Your task to perform on an android device: change notification settings in the gmail app Image 0: 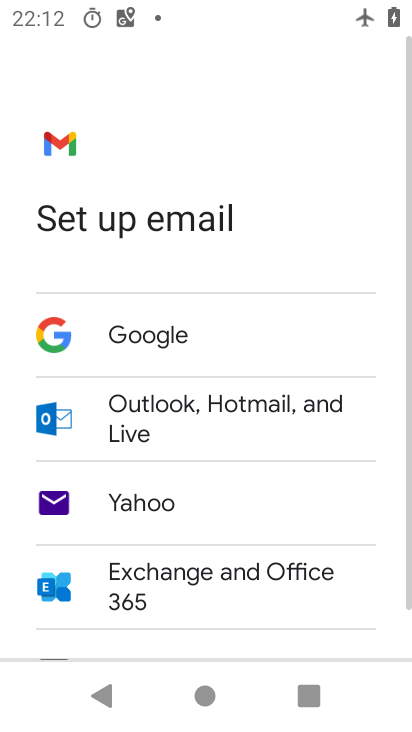
Step 0: press home button
Your task to perform on an android device: change notification settings in the gmail app Image 1: 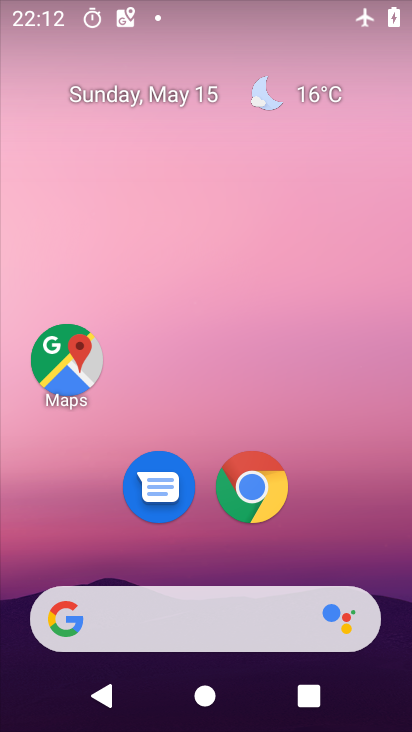
Step 1: drag from (408, 650) to (396, 238)
Your task to perform on an android device: change notification settings in the gmail app Image 2: 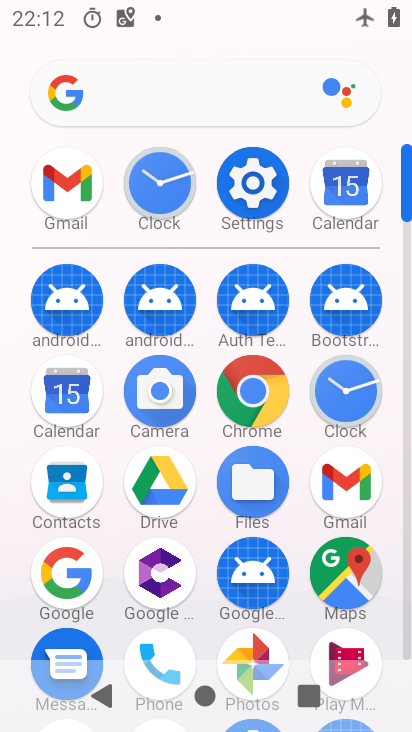
Step 2: click (349, 486)
Your task to perform on an android device: change notification settings in the gmail app Image 3: 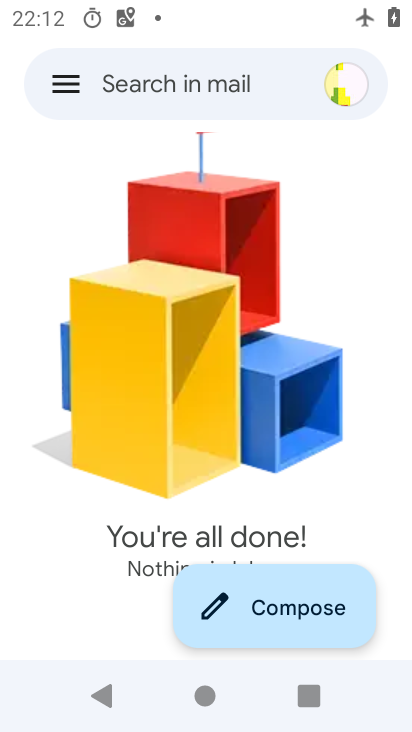
Step 3: click (57, 78)
Your task to perform on an android device: change notification settings in the gmail app Image 4: 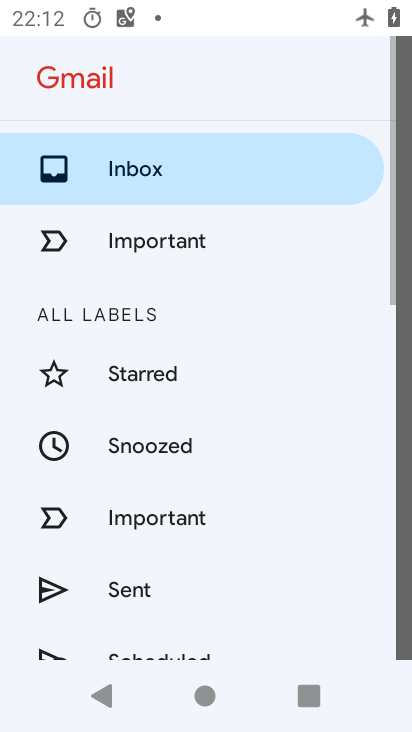
Step 4: drag from (267, 598) to (265, 336)
Your task to perform on an android device: change notification settings in the gmail app Image 5: 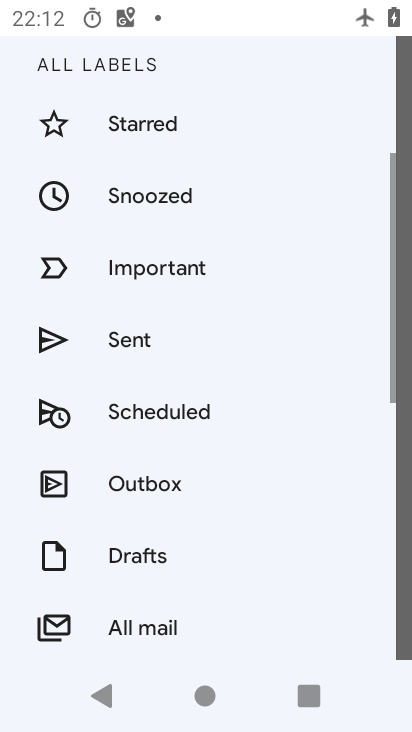
Step 5: drag from (282, 571) to (282, 338)
Your task to perform on an android device: change notification settings in the gmail app Image 6: 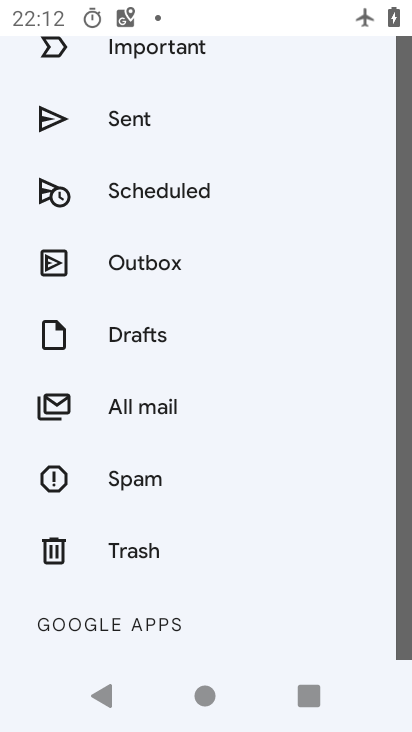
Step 6: drag from (288, 515) to (288, 317)
Your task to perform on an android device: change notification settings in the gmail app Image 7: 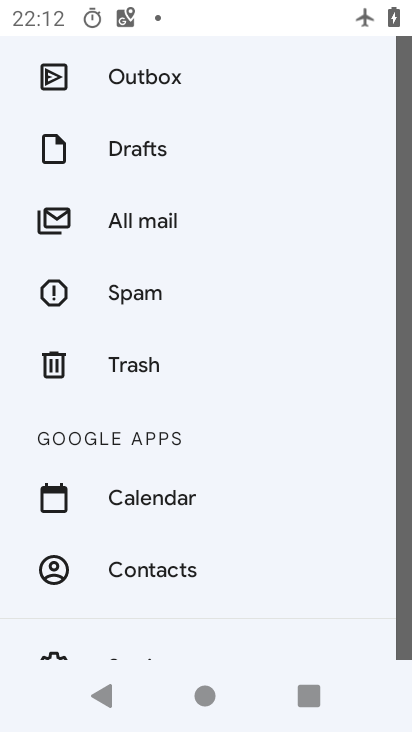
Step 7: drag from (286, 545) to (288, 269)
Your task to perform on an android device: change notification settings in the gmail app Image 8: 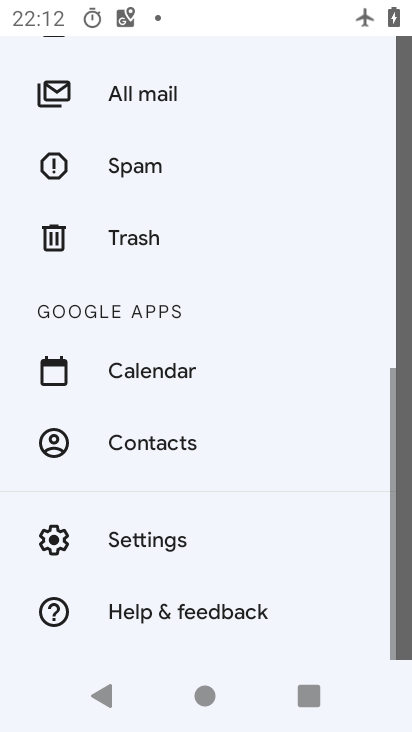
Step 8: click (167, 538)
Your task to perform on an android device: change notification settings in the gmail app Image 9: 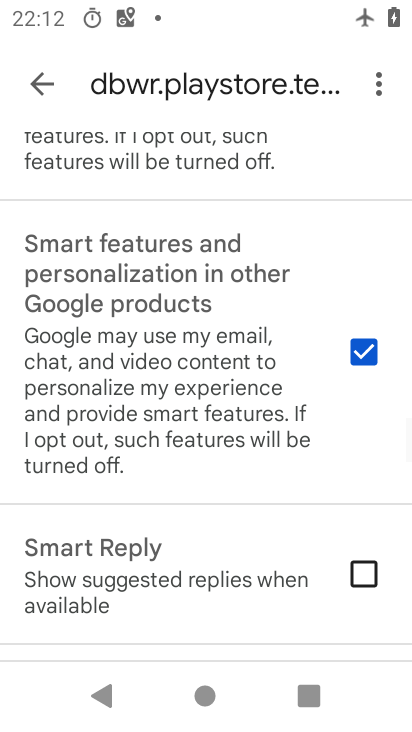
Step 9: drag from (272, 557) to (221, 287)
Your task to perform on an android device: change notification settings in the gmail app Image 10: 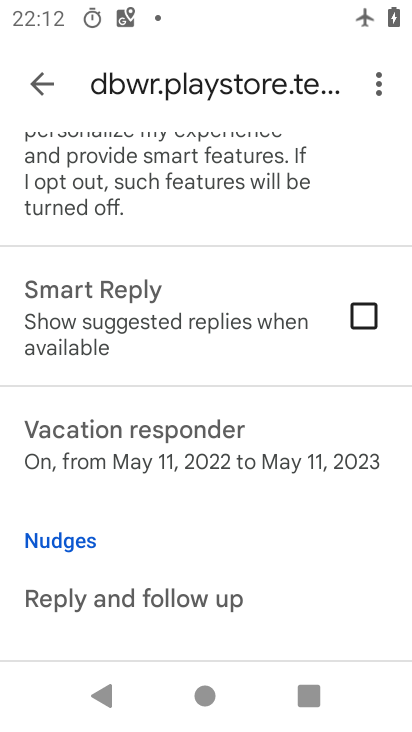
Step 10: drag from (201, 178) to (237, 443)
Your task to perform on an android device: change notification settings in the gmail app Image 11: 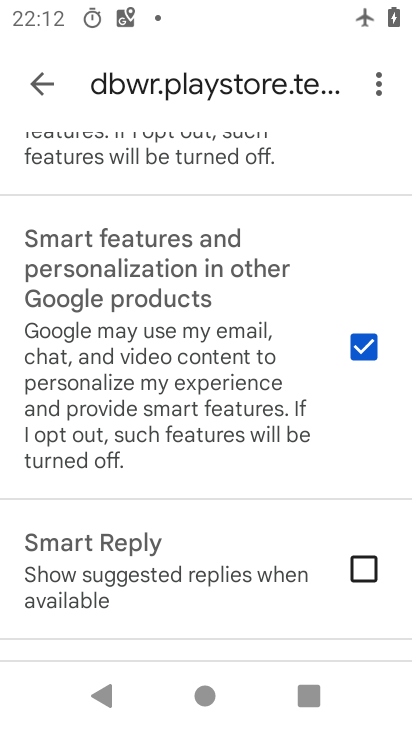
Step 11: drag from (209, 336) to (219, 389)
Your task to perform on an android device: change notification settings in the gmail app Image 12: 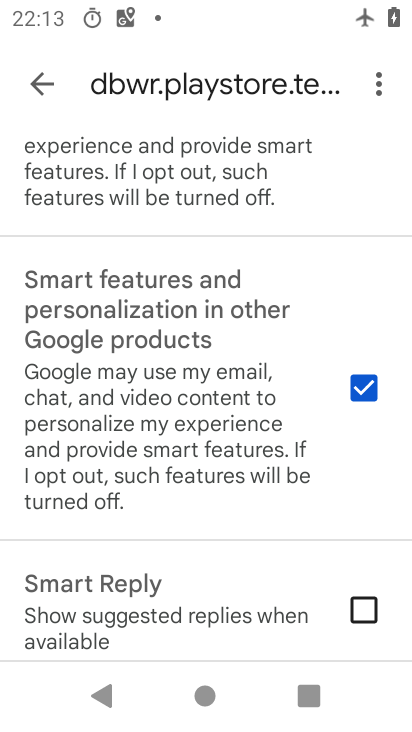
Step 12: drag from (206, 194) to (216, 413)
Your task to perform on an android device: change notification settings in the gmail app Image 13: 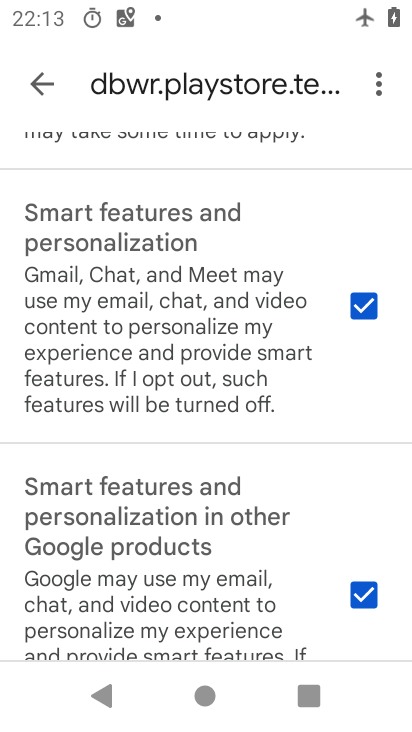
Step 13: drag from (207, 206) to (228, 370)
Your task to perform on an android device: change notification settings in the gmail app Image 14: 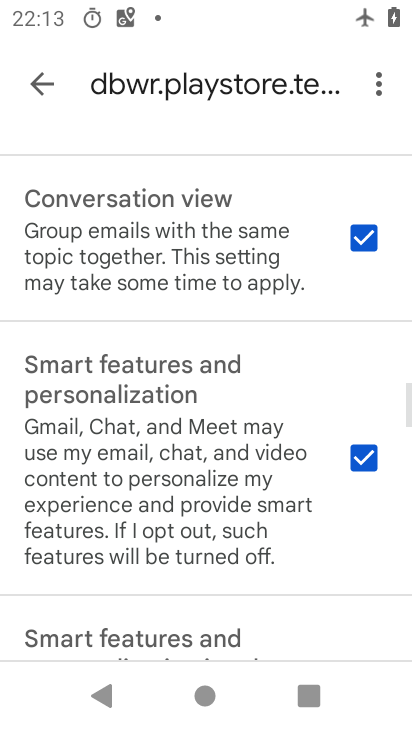
Step 14: click (225, 359)
Your task to perform on an android device: change notification settings in the gmail app Image 15: 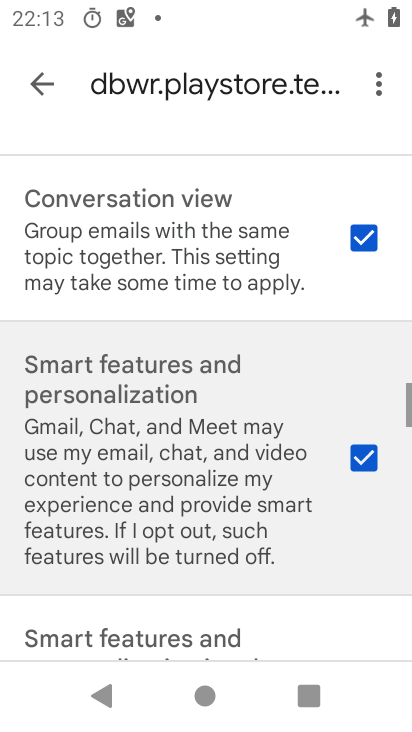
Step 15: drag from (229, 227) to (244, 427)
Your task to perform on an android device: change notification settings in the gmail app Image 16: 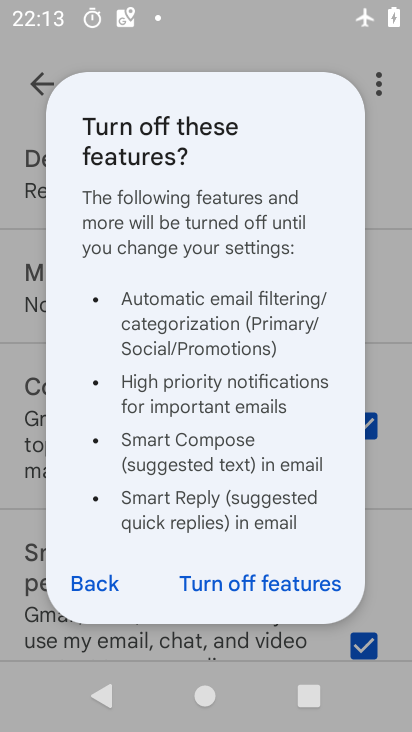
Step 16: click (89, 601)
Your task to perform on an android device: change notification settings in the gmail app Image 17: 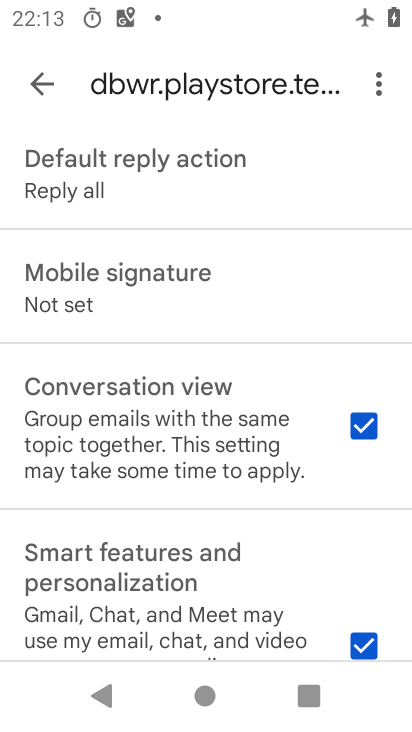
Step 17: drag from (218, 220) to (240, 435)
Your task to perform on an android device: change notification settings in the gmail app Image 18: 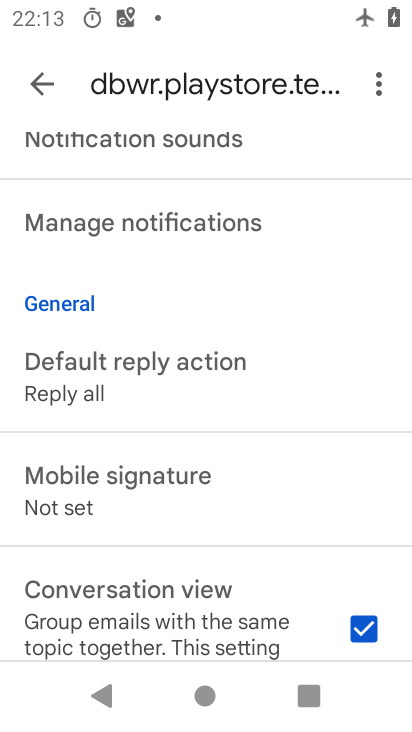
Step 18: drag from (194, 188) to (250, 340)
Your task to perform on an android device: change notification settings in the gmail app Image 19: 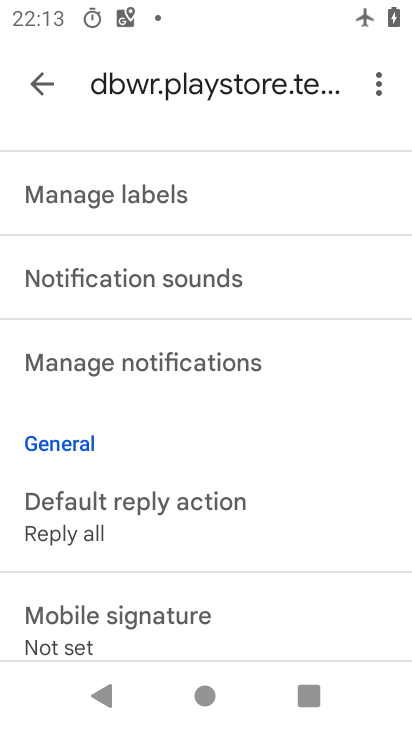
Step 19: click (77, 366)
Your task to perform on an android device: change notification settings in the gmail app Image 20: 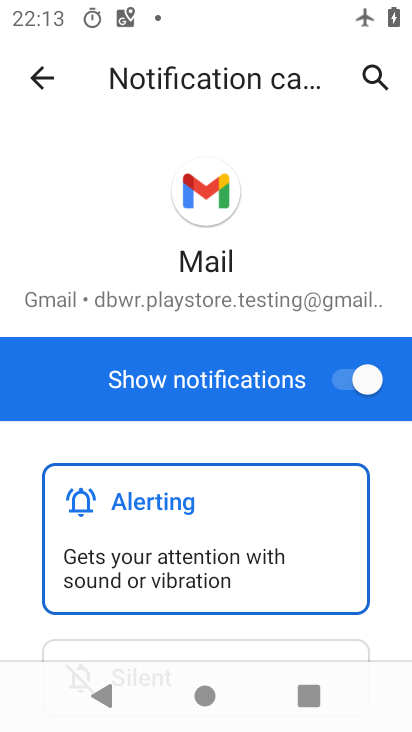
Step 20: click (343, 376)
Your task to perform on an android device: change notification settings in the gmail app Image 21: 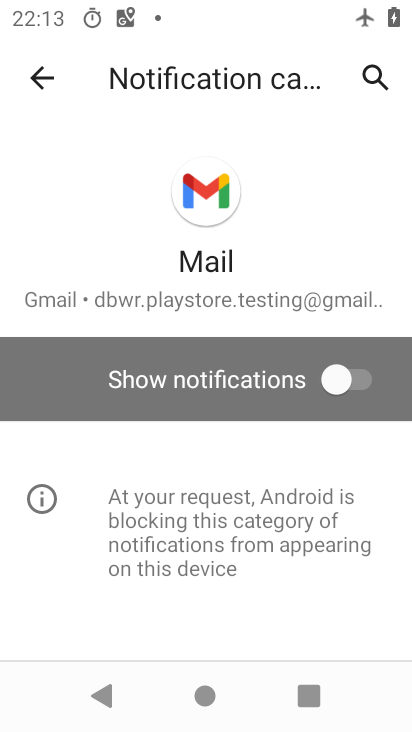
Step 21: task complete